Your task to perform on an android device: toggle improve location accuracy Image 0: 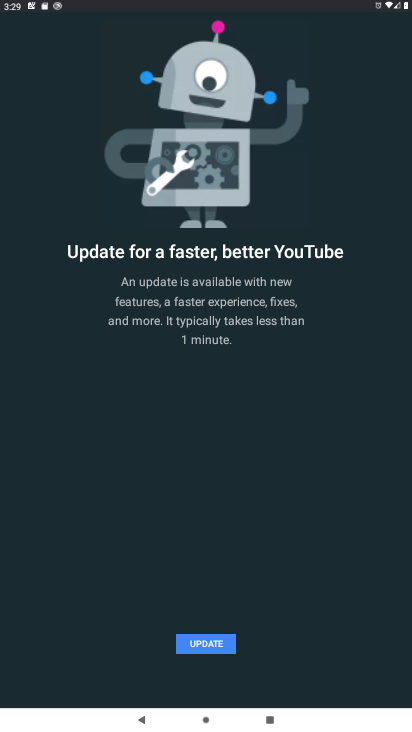
Step 0: press back button
Your task to perform on an android device: toggle improve location accuracy Image 1: 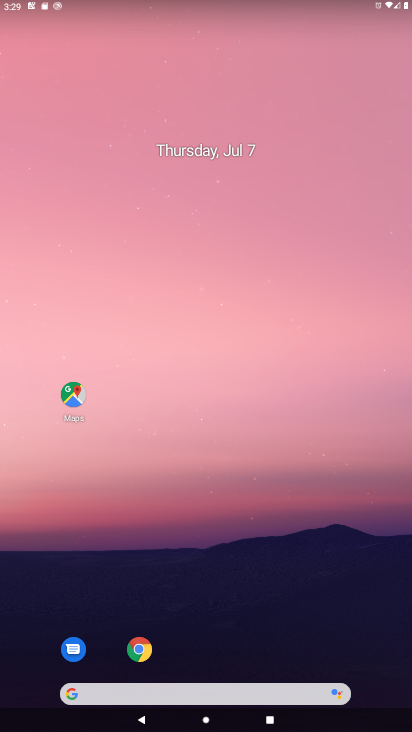
Step 1: drag from (225, 612) to (291, 45)
Your task to perform on an android device: toggle improve location accuracy Image 2: 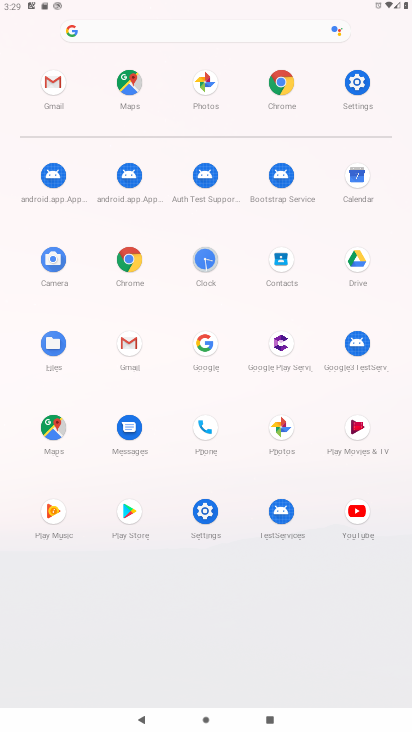
Step 2: click (362, 83)
Your task to perform on an android device: toggle improve location accuracy Image 3: 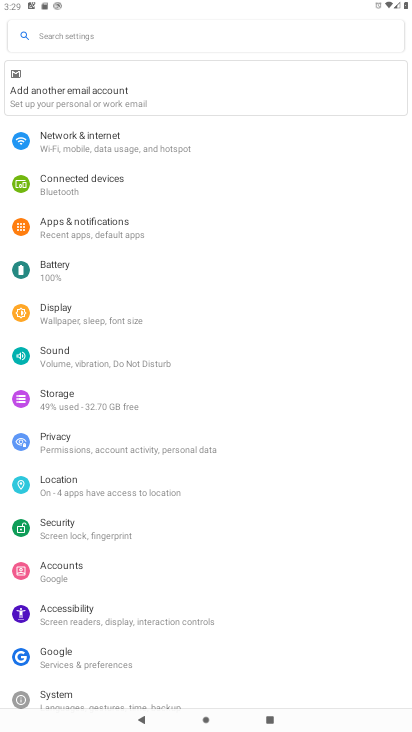
Step 3: click (73, 490)
Your task to perform on an android device: toggle improve location accuracy Image 4: 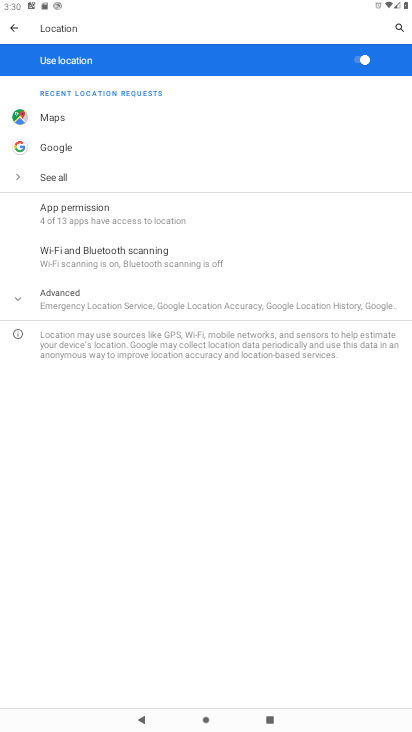
Step 4: click (150, 300)
Your task to perform on an android device: toggle improve location accuracy Image 5: 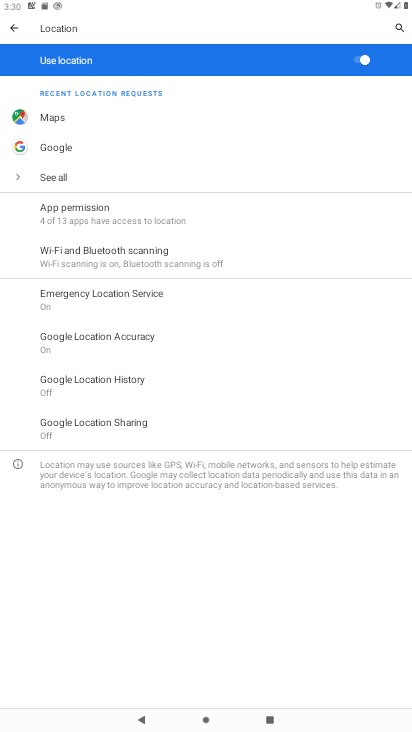
Step 5: click (130, 336)
Your task to perform on an android device: toggle improve location accuracy Image 6: 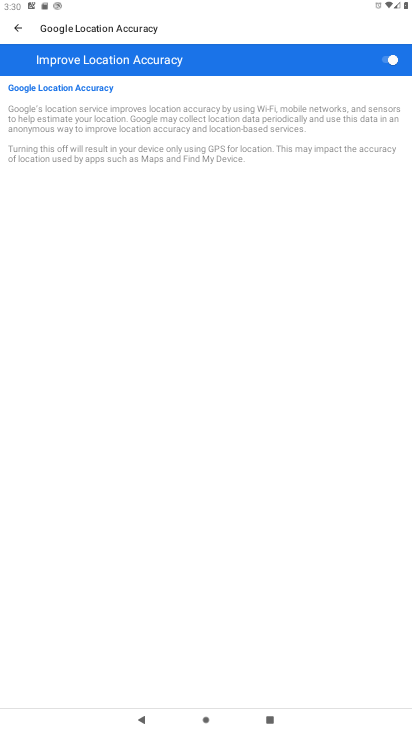
Step 6: click (388, 57)
Your task to perform on an android device: toggle improve location accuracy Image 7: 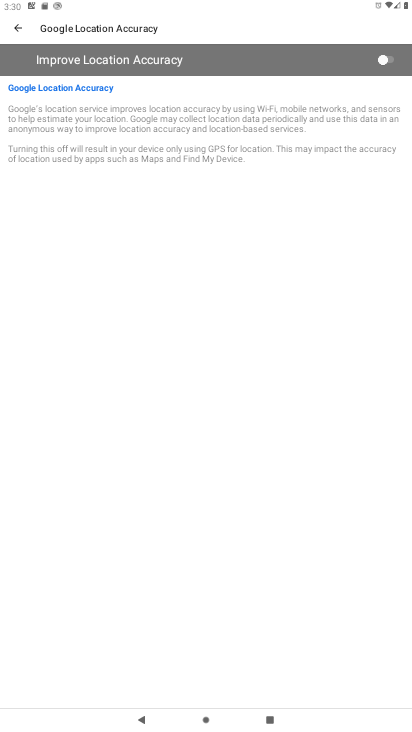
Step 7: task complete